Your task to perform on an android device: What's the weather today? Image 0: 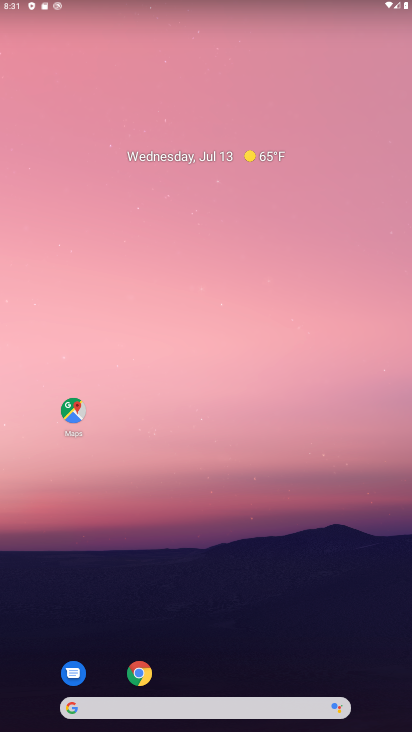
Step 0: drag from (180, 703) to (202, 160)
Your task to perform on an android device: What's the weather today? Image 1: 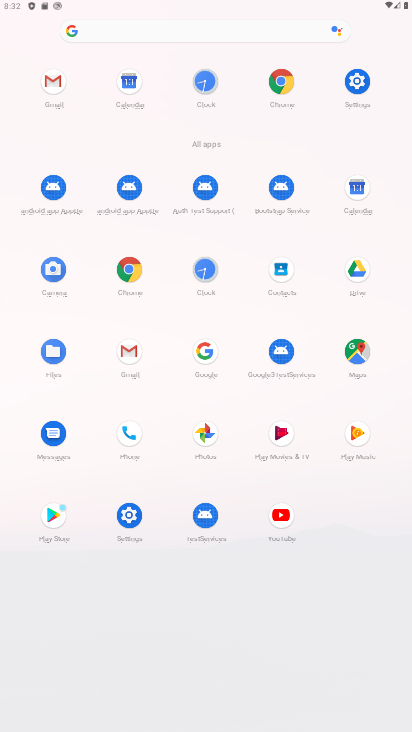
Step 1: click (203, 350)
Your task to perform on an android device: What's the weather today? Image 2: 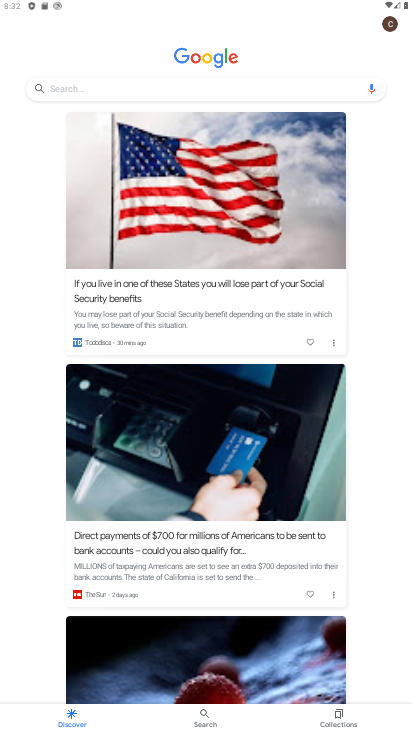
Step 2: click (243, 86)
Your task to perform on an android device: What's the weather today? Image 3: 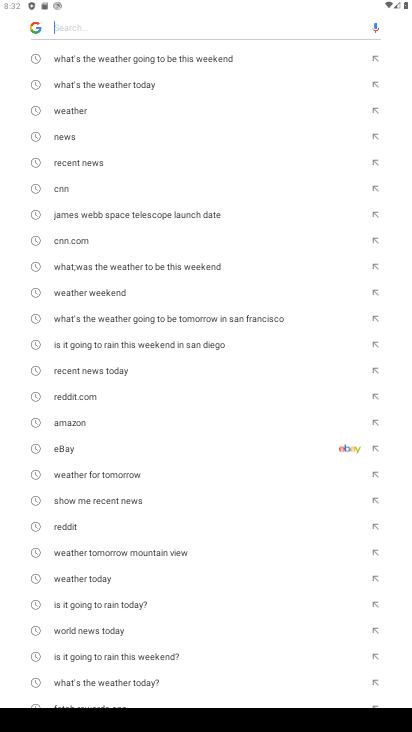
Step 3: click (82, 110)
Your task to perform on an android device: What's the weather today? Image 4: 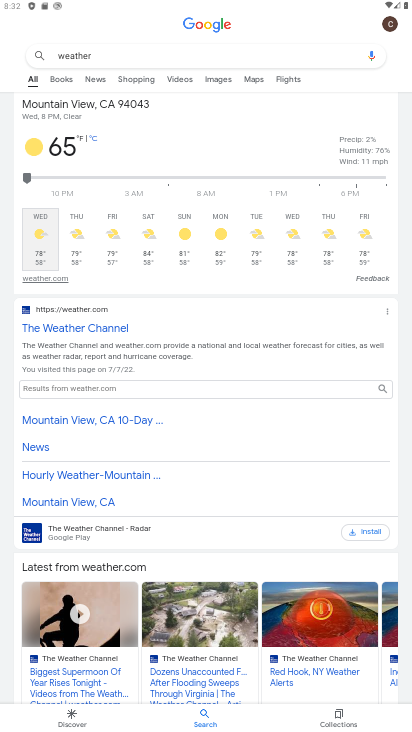
Step 4: task complete